Your task to perform on an android device: Open Google Chrome and open the bookmarks view Image 0: 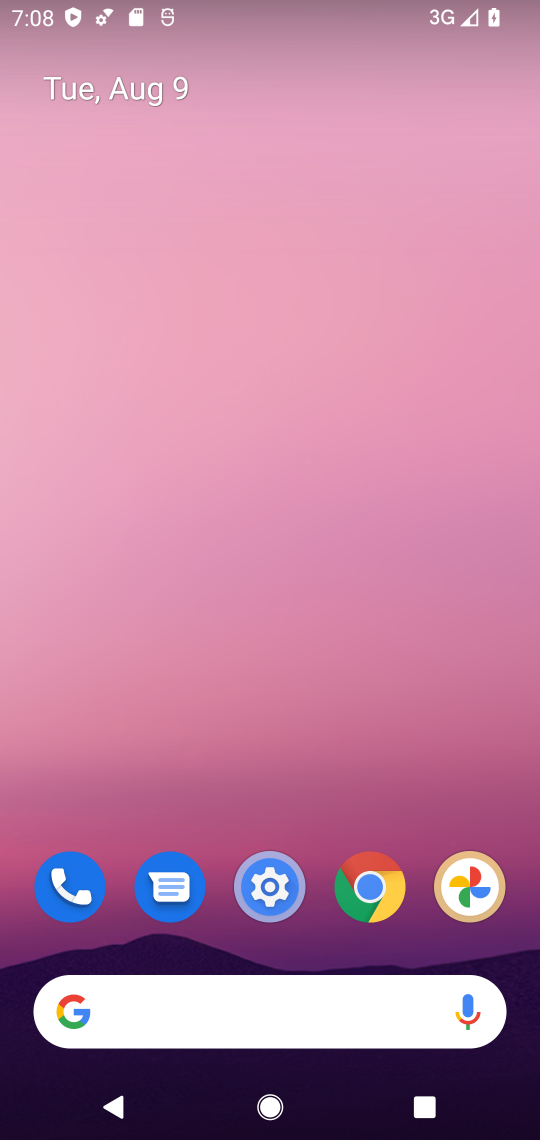
Step 0: click (370, 883)
Your task to perform on an android device: Open Google Chrome and open the bookmarks view Image 1: 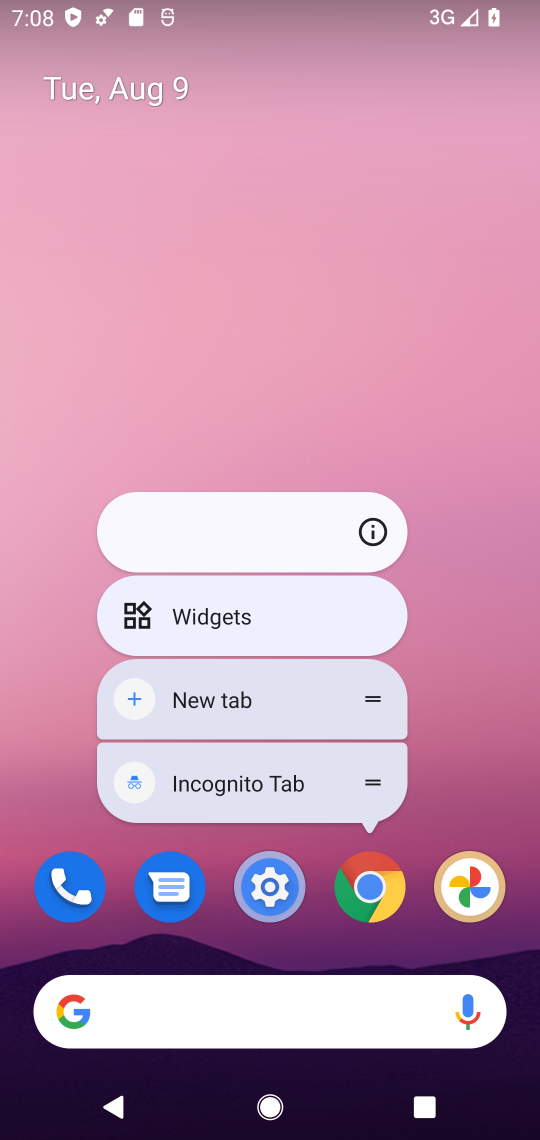
Step 1: click (370, 883)
Your task to perform on an android device: Open Google Chrome and open the bookmarks view Image 2: 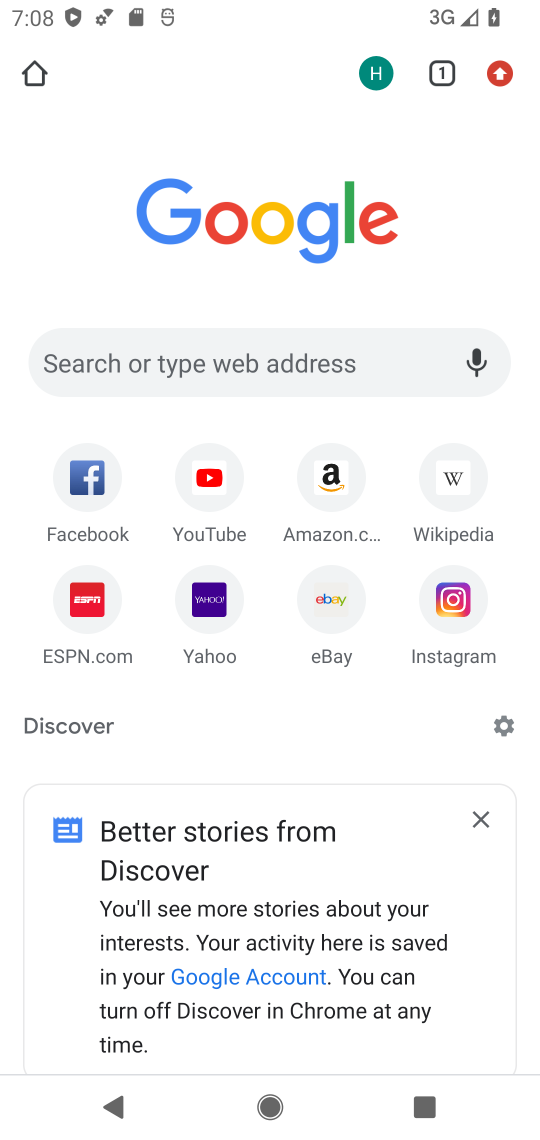
Step 2: click (498, 79)
Your task to perform on an android device: Open Google Chrome and open the bookmarks view Image 3: 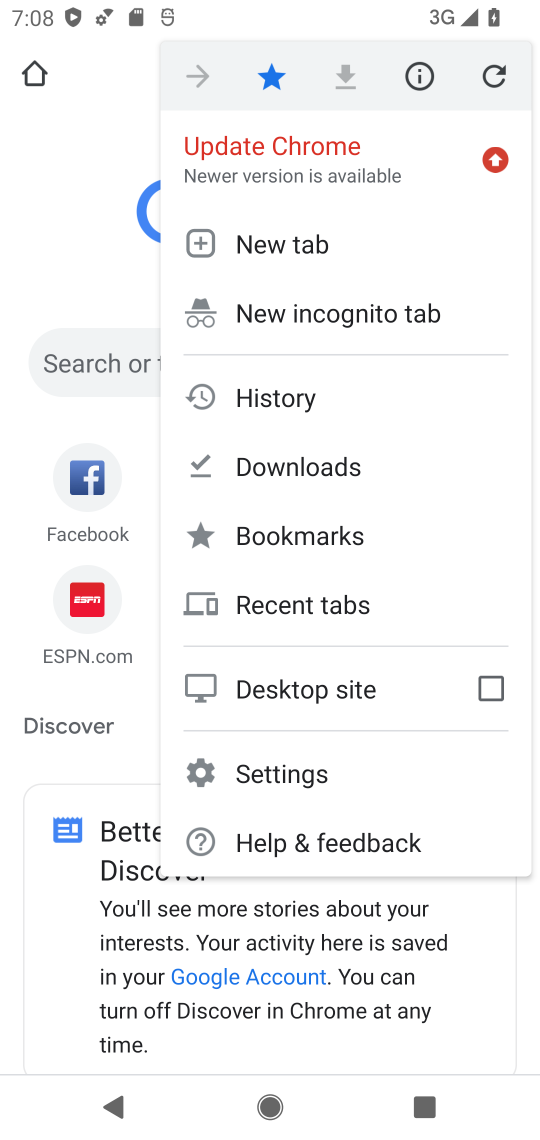
Step 3: click (321, 527)
Your task to perform on an android device: Open Google Chrome and open the bookmarks view Image 4: 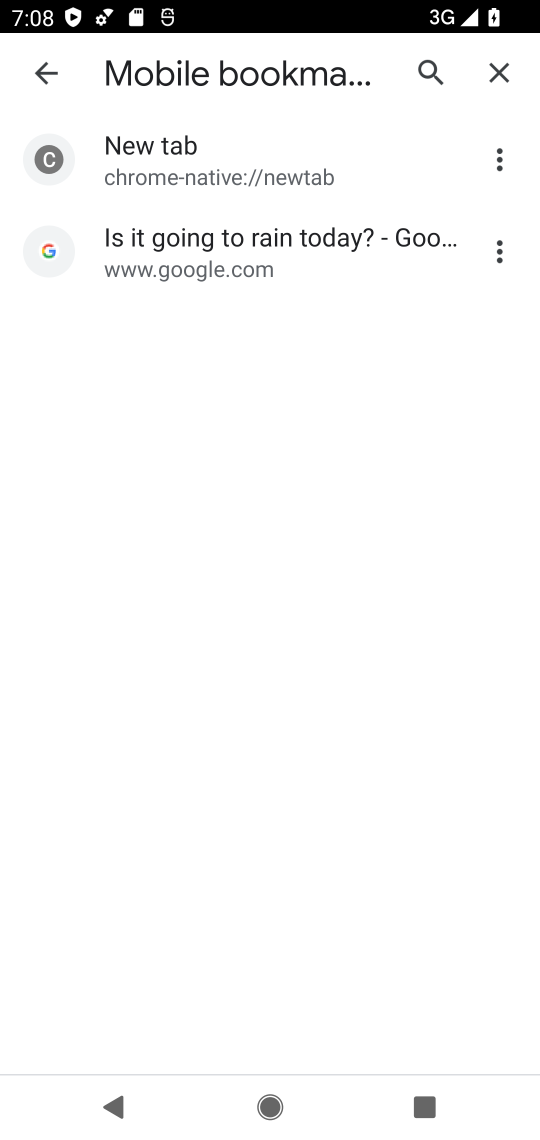
Step 4: task complete